Your task to perform on an android device: Go to CNN.com Image 0: 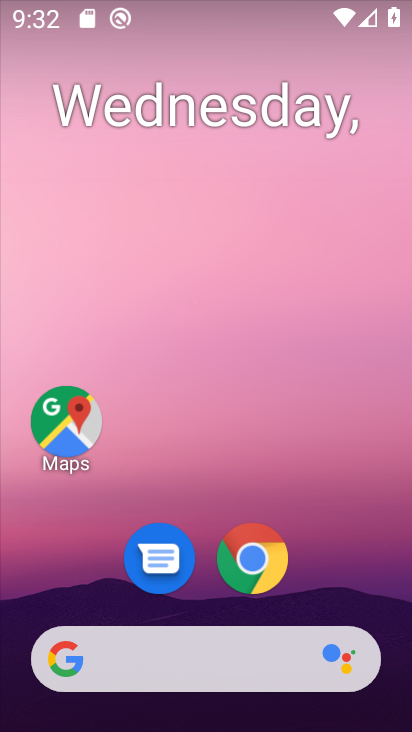
Step 0: drag from (340, 574) to (366, 79)
Your task to perform on an android device: Go to CNN.com Image 1: 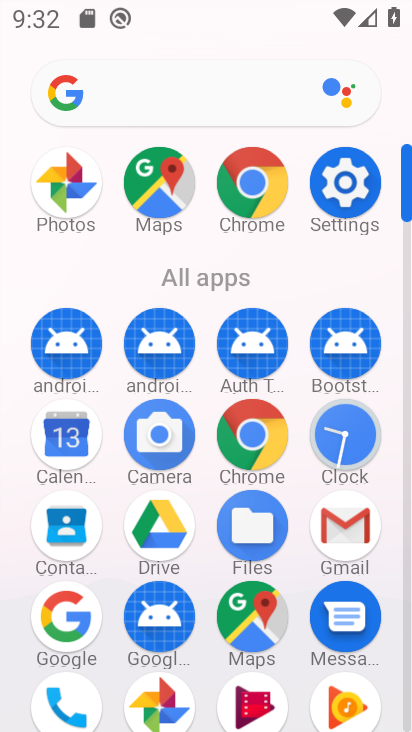
Step 1: click (259, 196)
Your task to perform on an android device: Go to CNN.com Image 2: 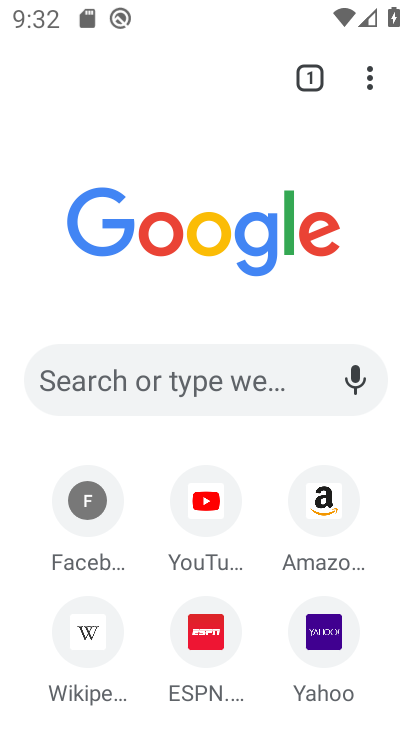
Step 2: click (228, 374)
Your task to perform on an android device: Go to CNN.com Image 3: 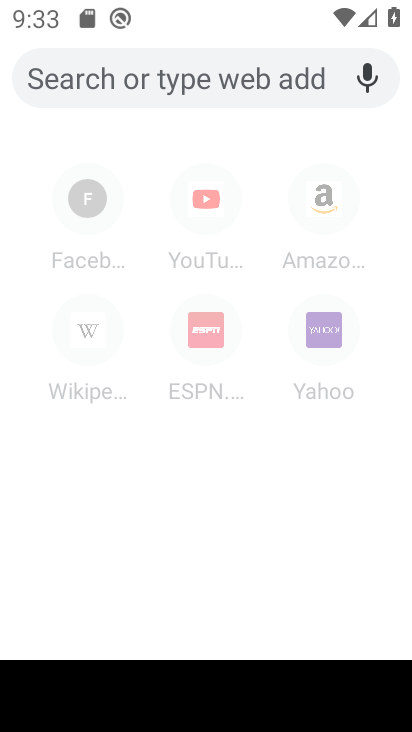
Step 3: type "cnn.com"
Your task to perform on an android device: Go to CNN.com Image 4: 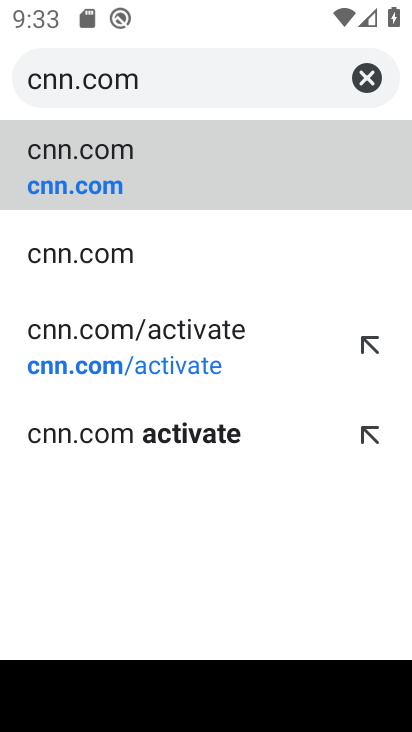
Step 4: click (250, 173)
Your task to perform on an android device: Go to CNN.com Image 5: 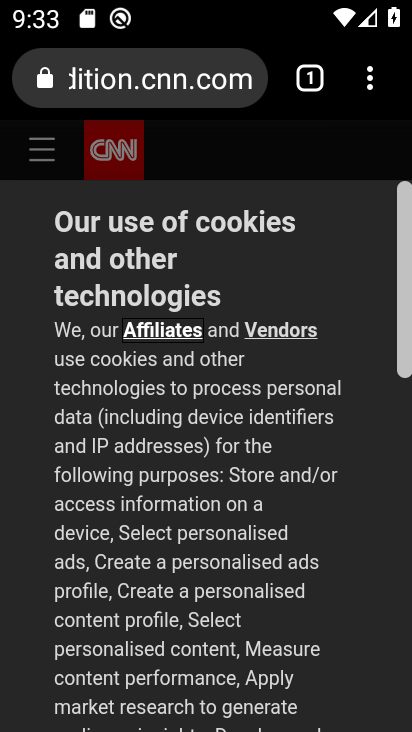
Step 5: task complete